Your task to perform on an android device: Do I have any events tomorrow? Image 0: 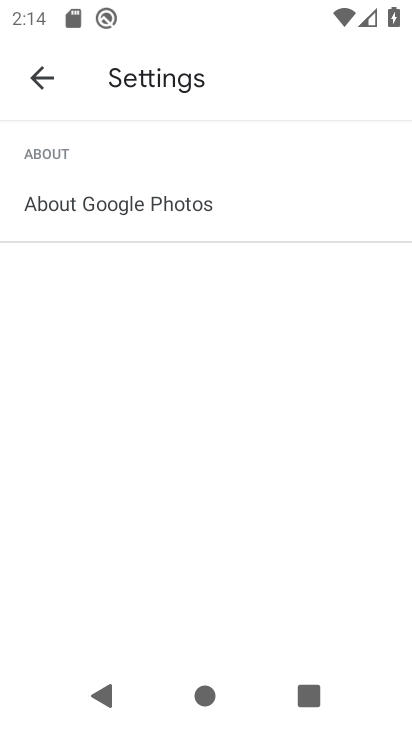
Step 0: press home button
Your task to perform on an android device: Do I have any events tomorrow? Image 1: 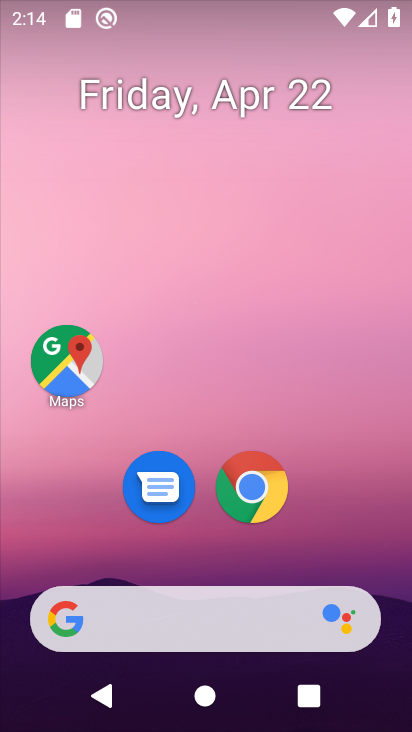
Step 1: drag from (291, 525) to (294, 170)
Your task to perform on an android device: Do I have any events tomorrow? Image 2: 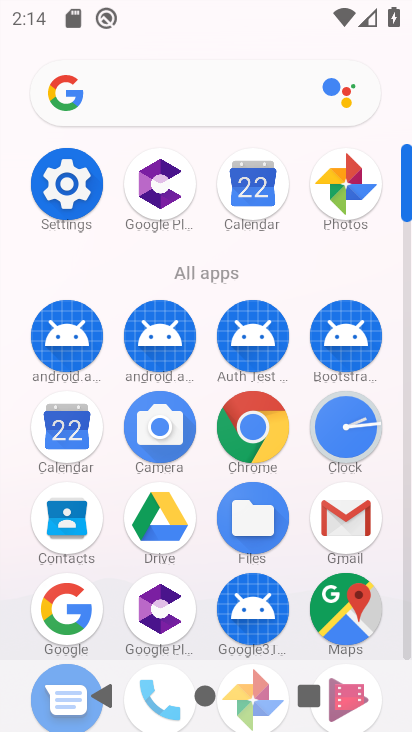
Step 2: click (67, 442)
Your task to perform on an android device: Do I have any events tomorrow? Image 3: 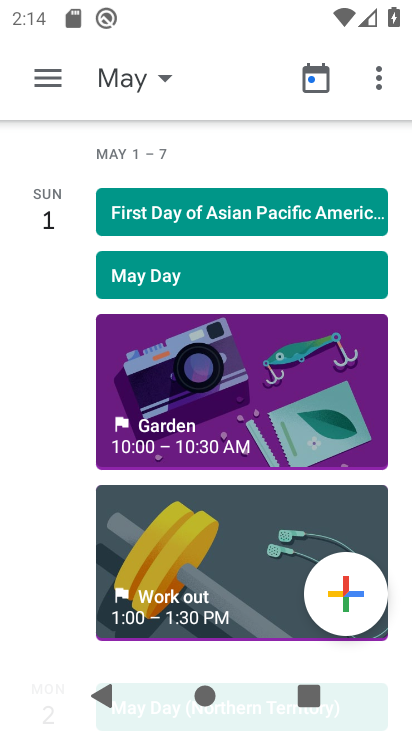
Step 3: click (148, 85)
Your task to perform on an android device: Do I have any events tomorrow? Image 4: 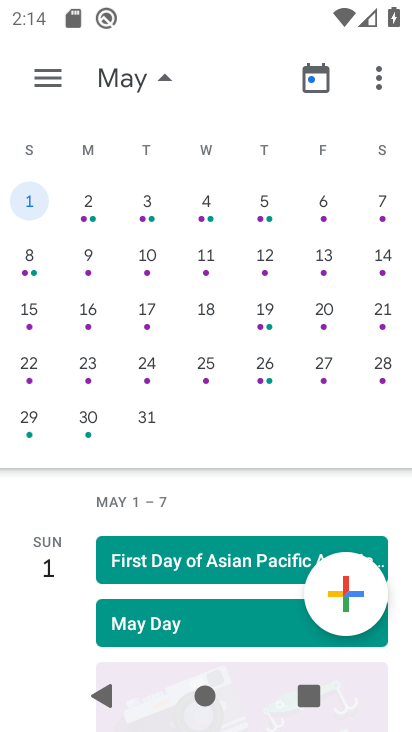
Step 4: drag from (225, 307) to (389, 336)
Your task to perform on an android device: Do I have any events tomorrow? Image 5: 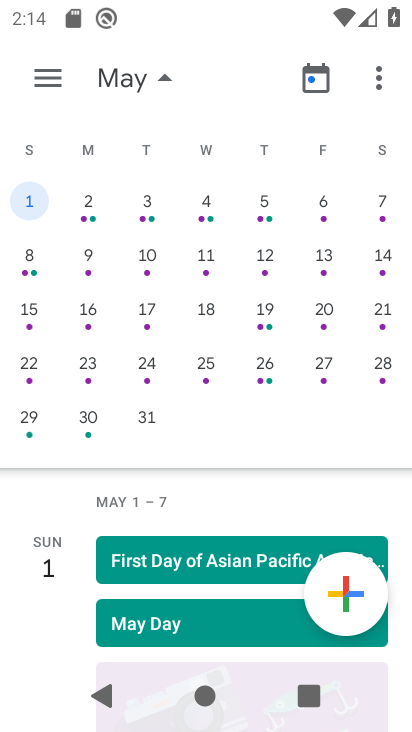
Step 5: drag from (104, 292) to (407, 305)
Your task to perform on an android device: Do I have any events tomorrow? Image 6: 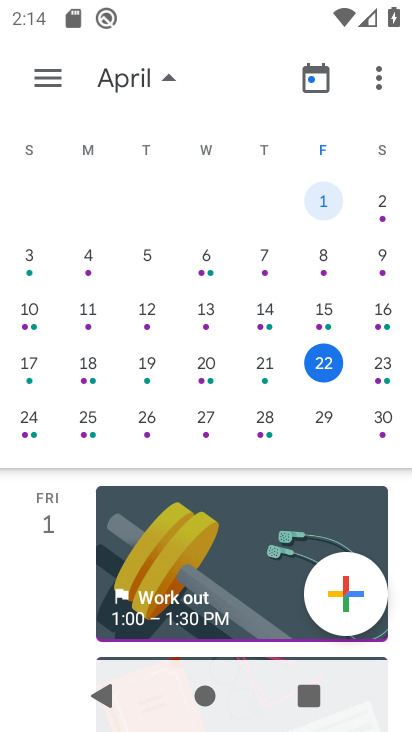
Step 6: click (374, 366)
Your task to perform on an android device: Do I have any events tomorrow? Image 7: 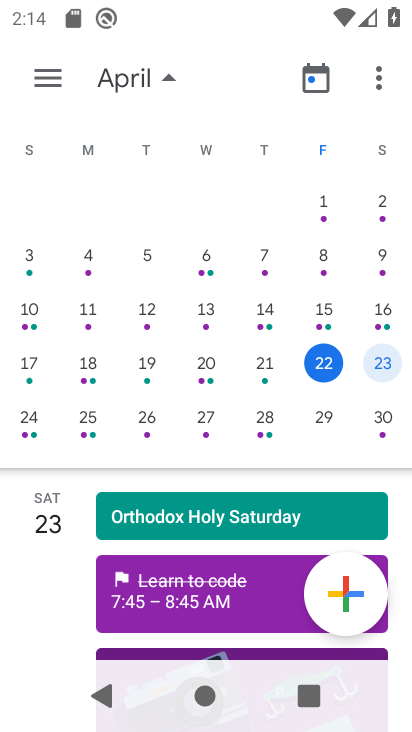
Step 7: click (149, 89)
Your task to perform on an android device: Do I have any events tomorrow? Image 8: 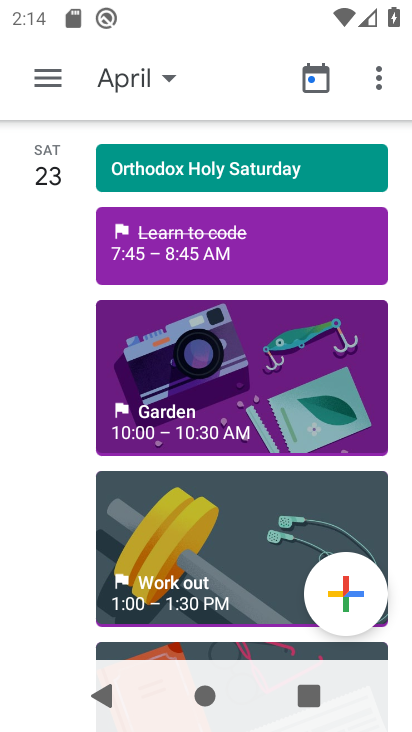
Step 8: task complete